Your task to perform on an android device: change notification settings in the gmail app Image 0: 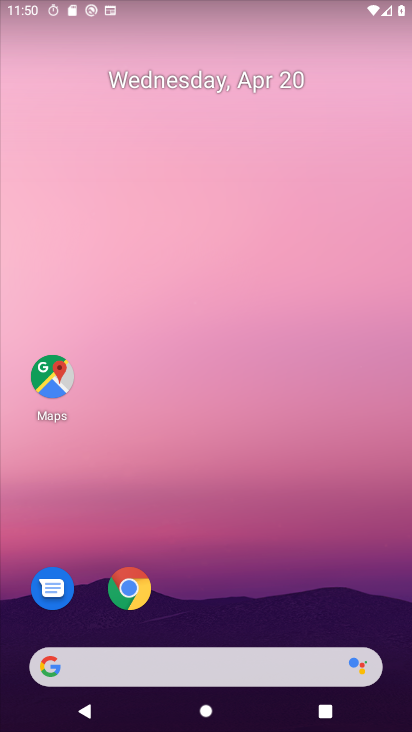
Step 0: drag from (219, 523) to (200, 33)
Your task to perform on an android device: change notification settings in the gmail app Image 1: 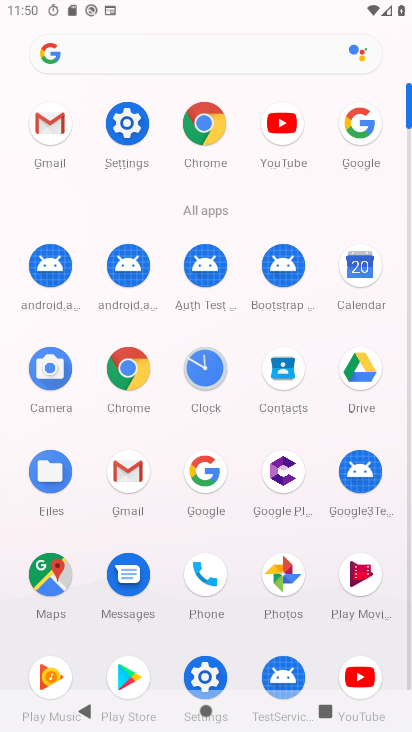
Step 1: click (124, 464)
Your task to perform on an android device: change notification settings in the gmail app Image 2: 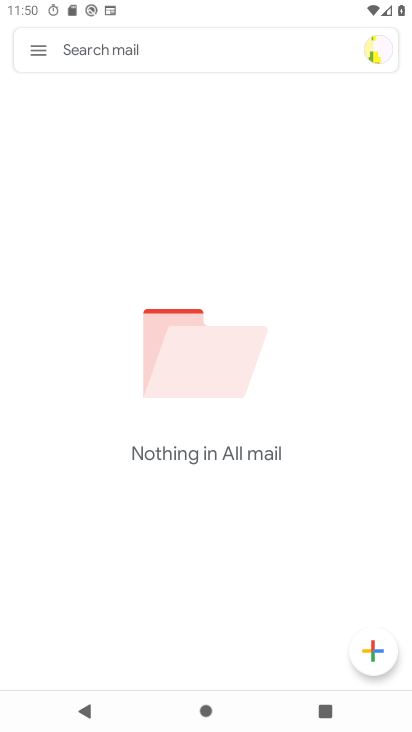
Step 2: click (31, 45)
Your task to perform on an android device: change notification settings in the gmail app Image 3: 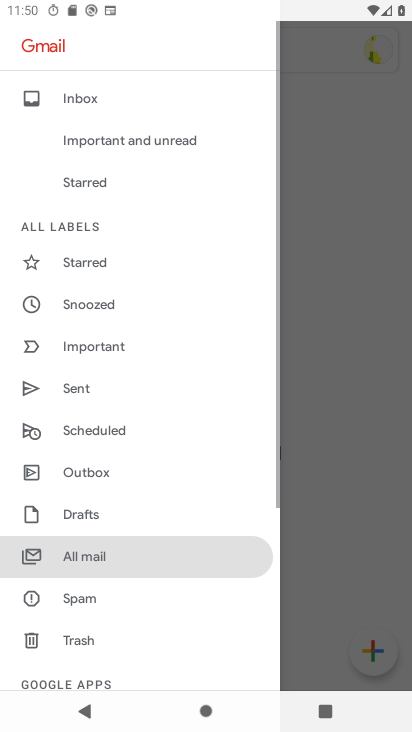
Step 3: drag from (132, 625) to (132, 127)
Your task to perform on an android device: change notification settings in the gmail app Image 4: 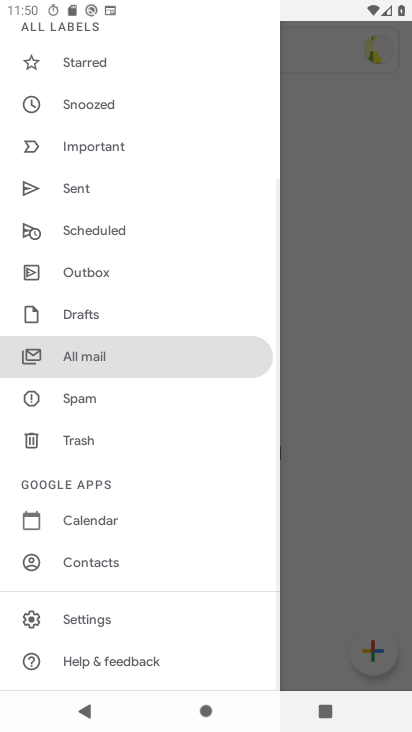
Step 4: click (113, 618)
Your task to perform on an android device: change notification settings in the gmail app Image 5: 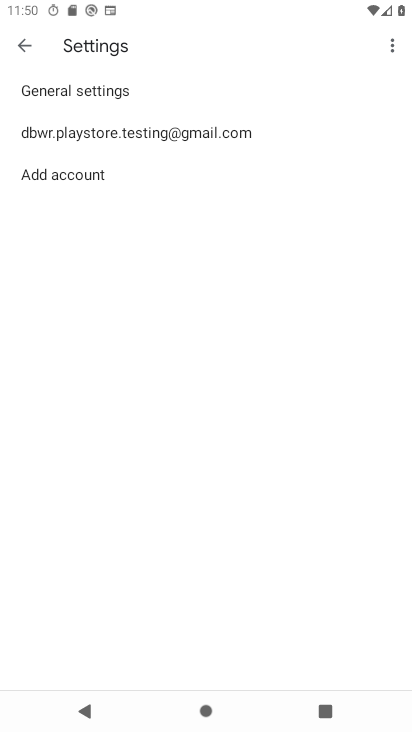
Step 5: click (137, 89)
Your task to perform on an android device: change notification settings in the gmail app Image 6: 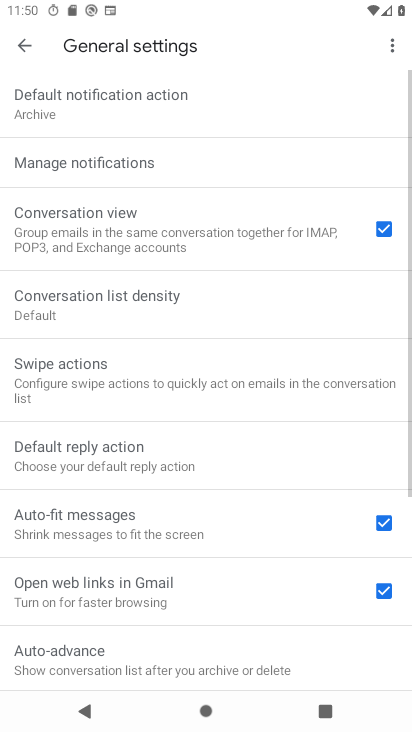
Step 6: click (164, 160)
Your task to perform on an android device: change notification settings in the gmail app Image 7: 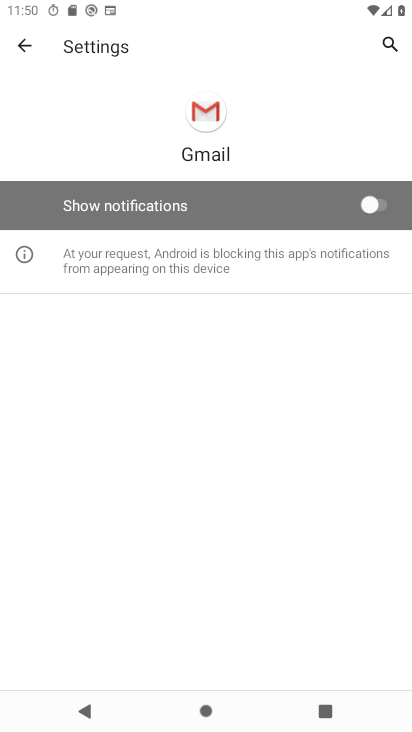
Step 7: click (379, 198)
Your task to perform on an android device: change notification settings in the gmail app Image 8: 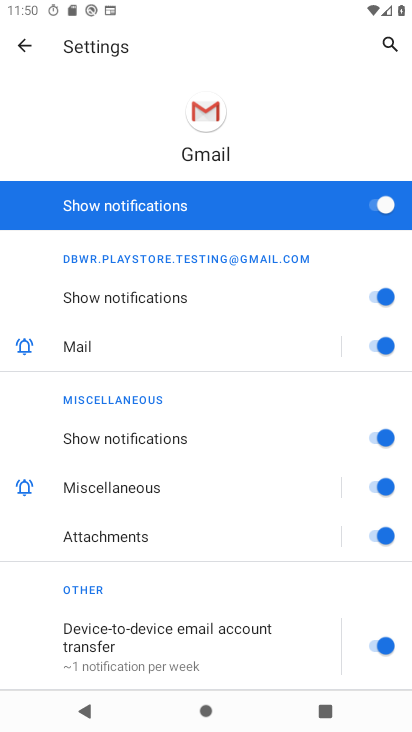
Step 8: task complete